Your task to perform on an android device: change the clock display to analog Image 0: 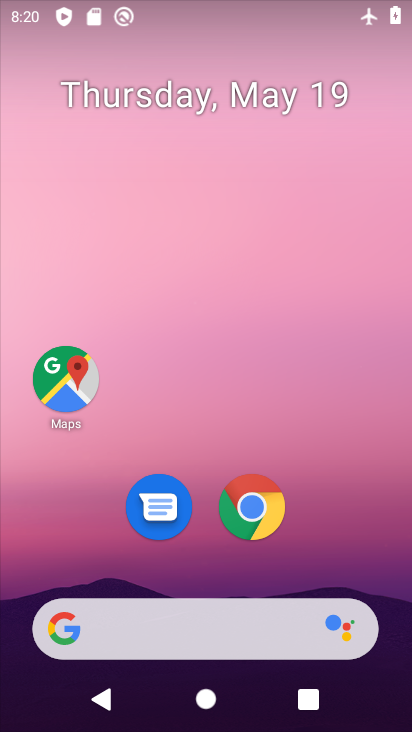
Step 0: drag from (232, 715) to (235, 176)
Your task to perform on an android device: change the clock display to analog Image 1: 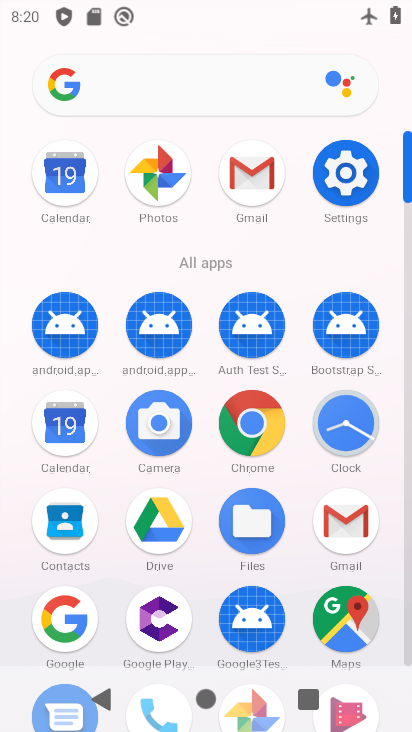
Step 1: click (351, 421)
Your task to perform on an android device: change the clock display to analog Image 2: 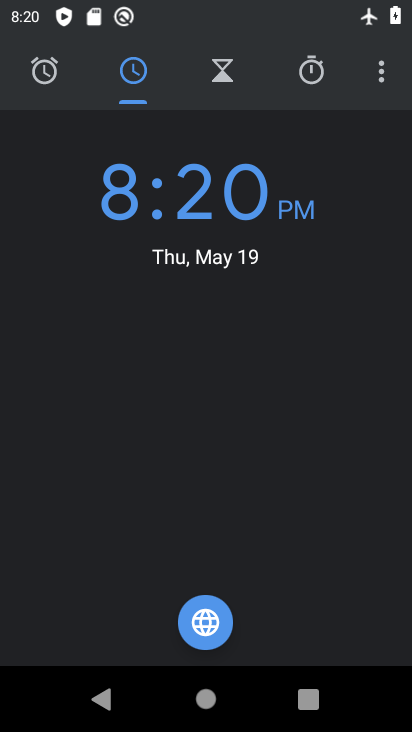
Step 2: click (381, 73)
Your task to perform on an android device: change the clock display to analog Image 3: 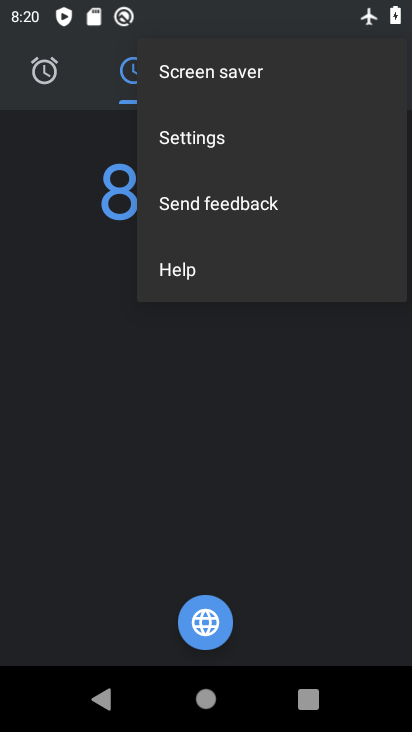
Step 3: click (206, 131)
Your task to perform on an android device: change the clock display to analog Image 4: 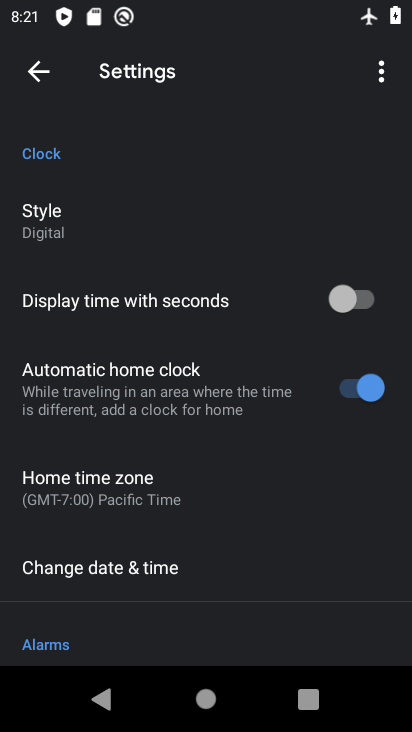
Step 4: click (47, 220)
Your task to perform on an android device: change the clock display to analog Image 5: 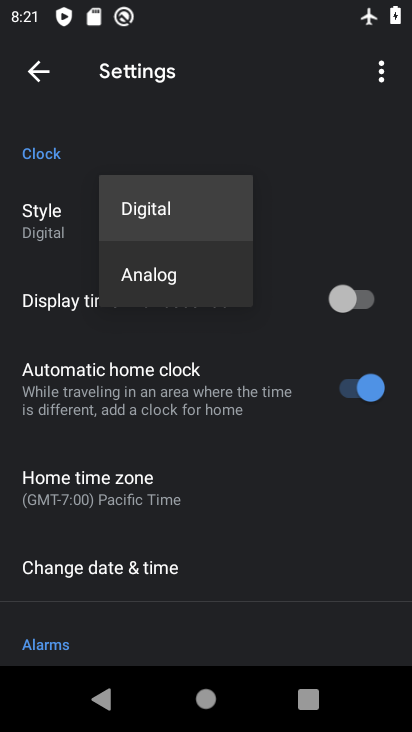
Step 5: click (155, 284)
Your task to perform on an android device: change the clock display to analog Image 6: 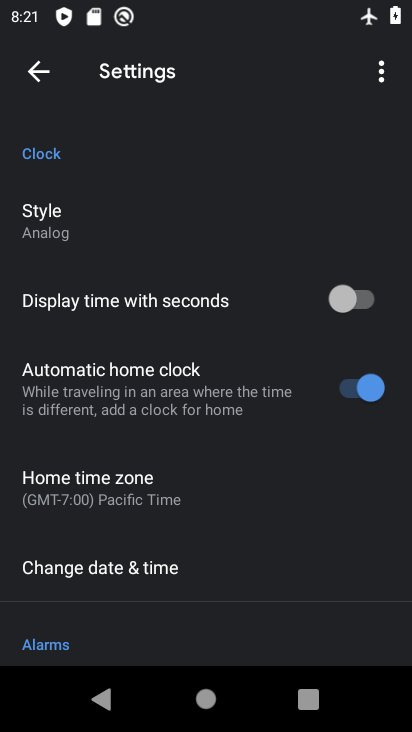
Step 6: task complete